Your task to perform on an android device: Show me productivity apps on the Play Store Image 0: 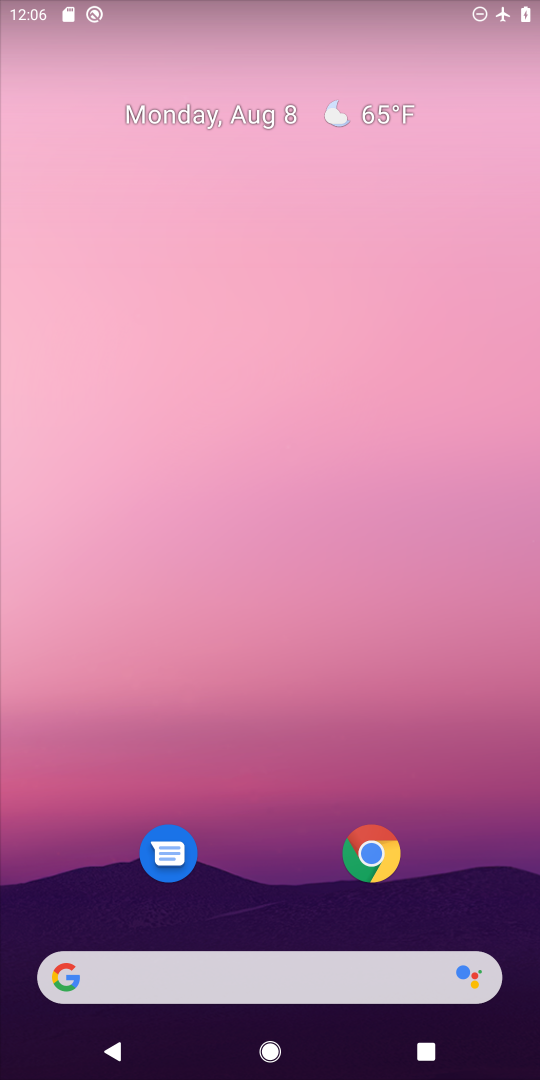
Step 0: drag from (291, 860) to (271, 223)
Your task to perform on an android device: Show me productivity apps on the Play Store Image 1: 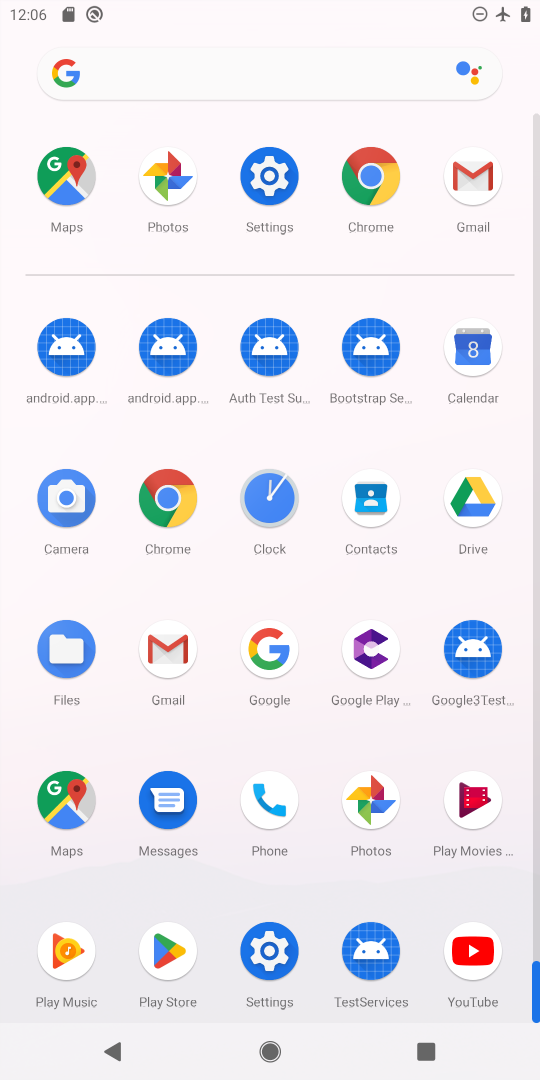
Step 1: click (155, 939)
Your task to perform on an android device: Show me productivity apps on the Play Store Image 2: 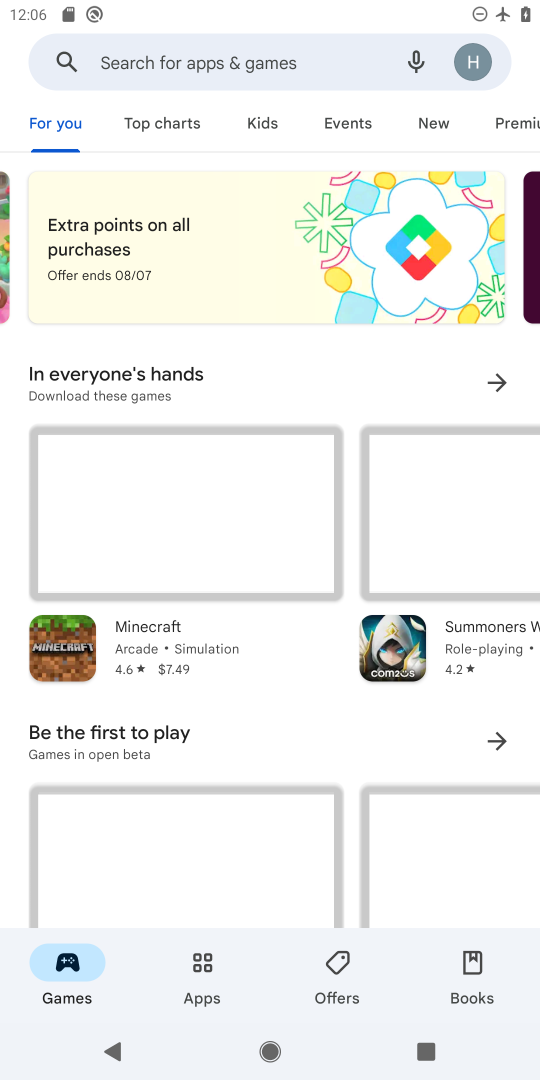
Step 2: click (202, 956)
Your task to perform on an android device: Show me productivity apps on the Play Store Image 3: 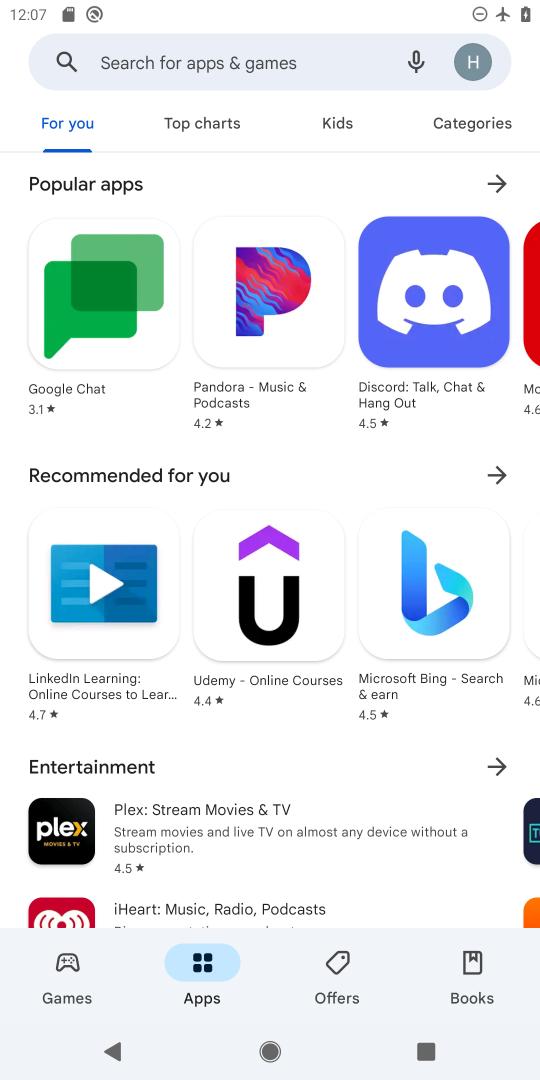
Step 3: task complete